Your task to perform on an android device: Open Maps and search for coffee Image 0: 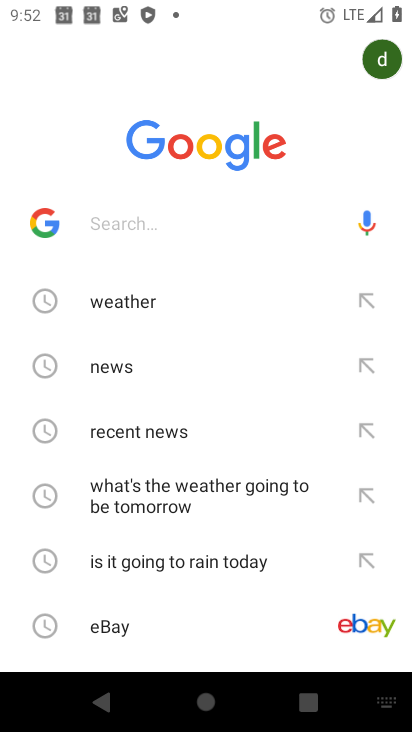
Step 0: press home button
Your task to perform on an android device: Open Maps and search for coffee Image 1: 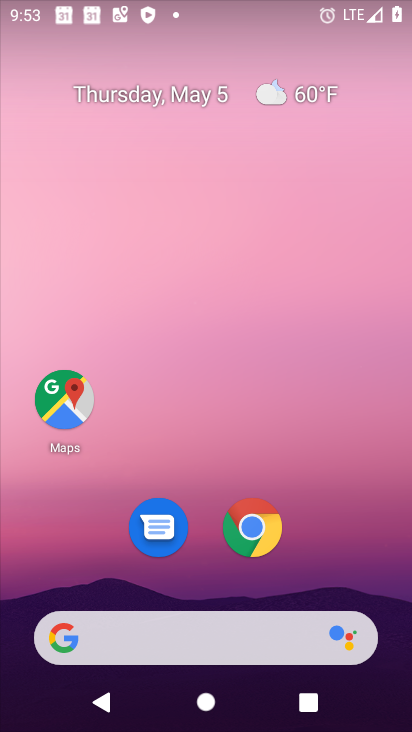
Step 1: click (87, 401)
Your task to perform on an android device: Open Maps and search for coffee Image 2: 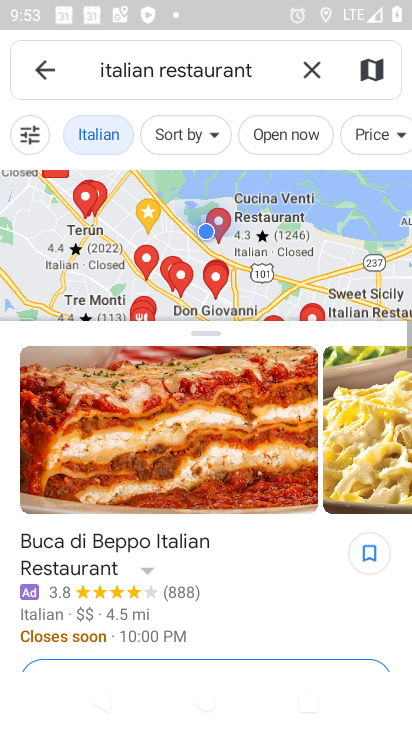
Step 2: click (316, 71)
Your task to perform on an android device: Open Maps and search for coffee Image 3: 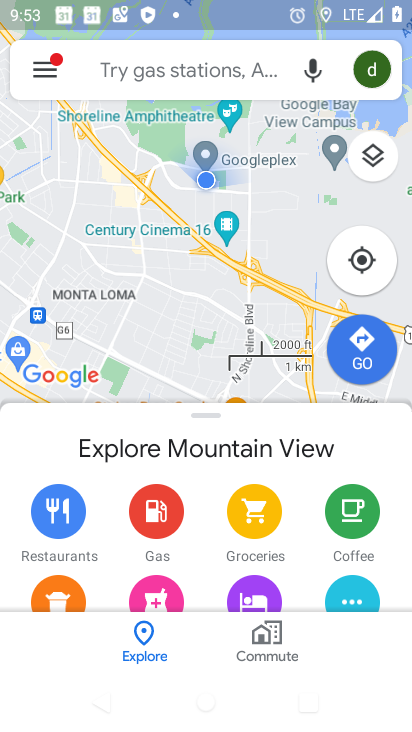
Step 3: click (199, 78)
Your task to perform on an android device: Open Maps and search for coffee Image 4: 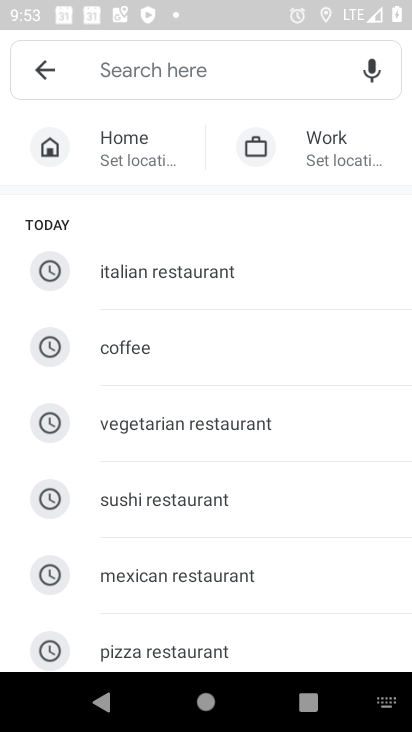
Step 4: click (237, 348)
Your task to perform on an android device: Open Maps and search for coffee Image 5: 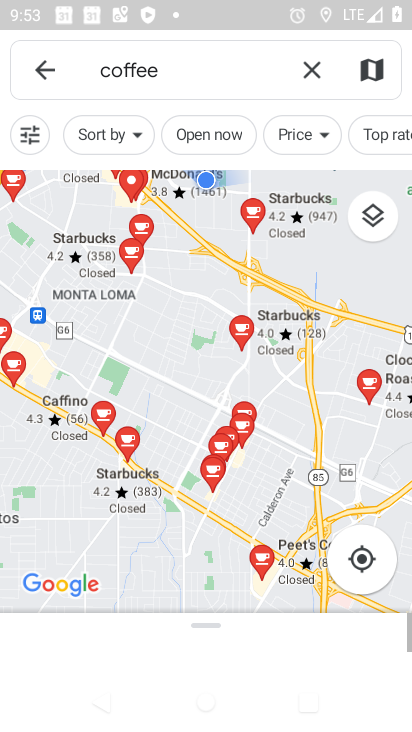
Step 5: task complete